Your task to perform on an android device: Open Google Maps and go to "Timeline" Image 0: 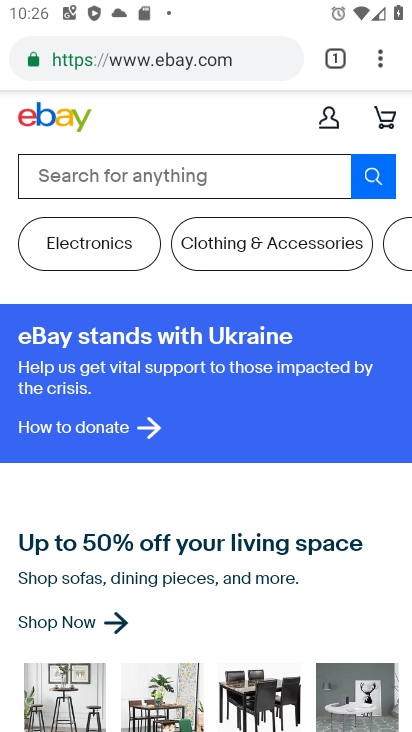
Step 0: press home button
Your task to perform on an android device: Open Google Maps and go to "Timeline" Image 1: 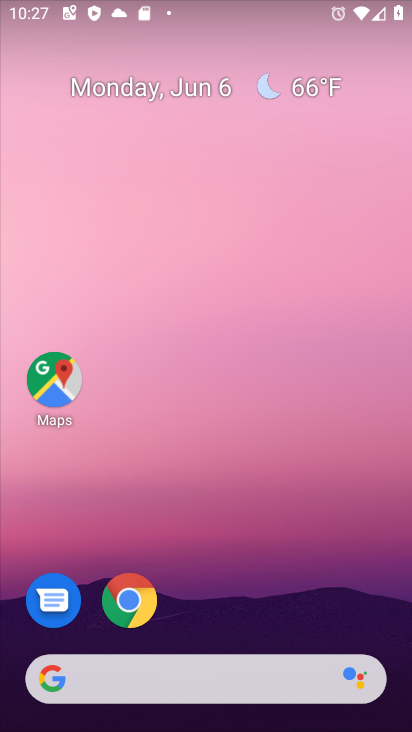
Step 1: drag from (10, 662) to (286, 151)
Your task to perform on an android device: Open Google Maps and go to "Timeline" Image 2: 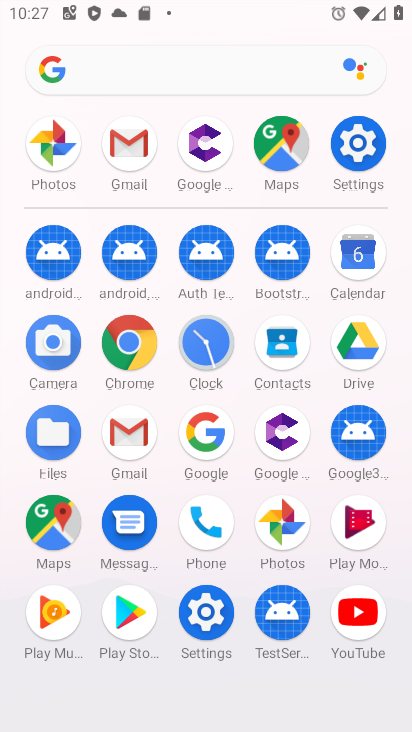
Step 2: click (218, 433)
Your task to perform on an android device: Open Google Maps and go to "Timeline" Image 3: 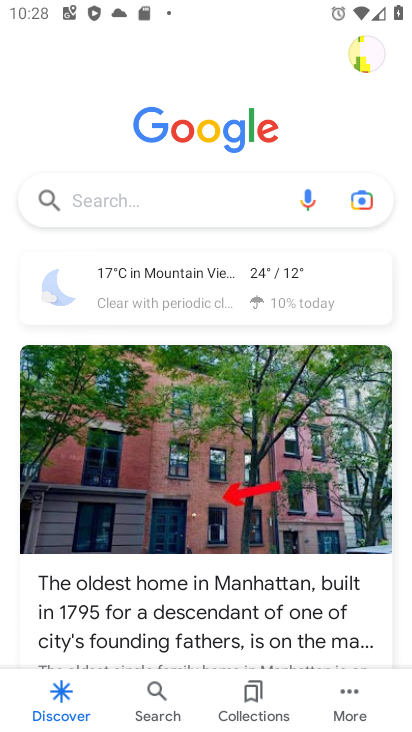
Step 3: drag from (173, 71) to (182, 491)
Your task to perform on an android device: Open Google Maps and go to "Timeline" Image 4: 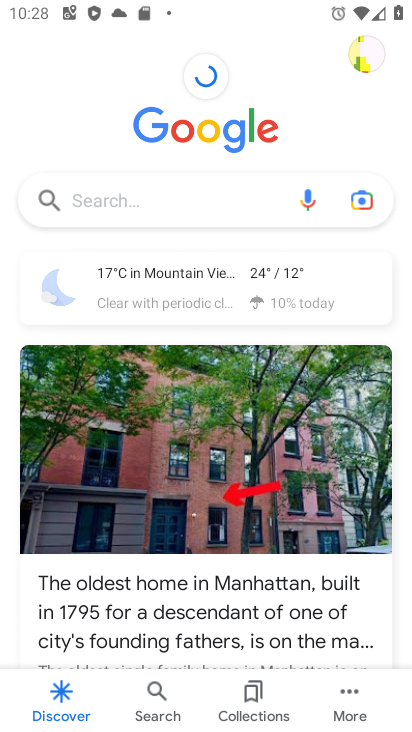
Step 4: click (358, 56)
Your task to perform on an android device: Open Google Maps and go to "Timeline" Image 5: 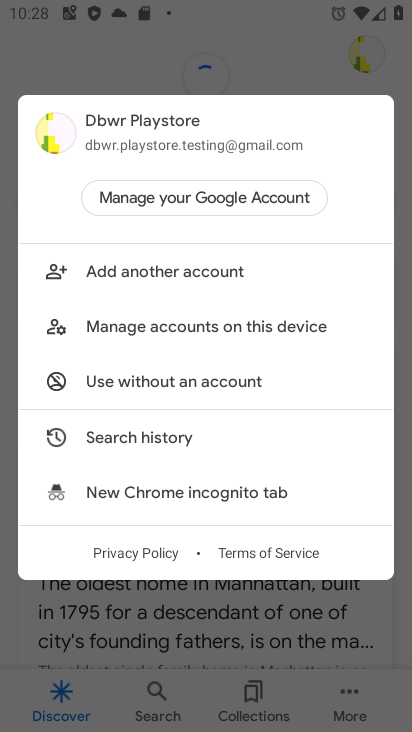
Step 5: task complete